Your task to perform on an android device: Search for a 1/4" hex shank drill bit on Lowe's. Image 0: 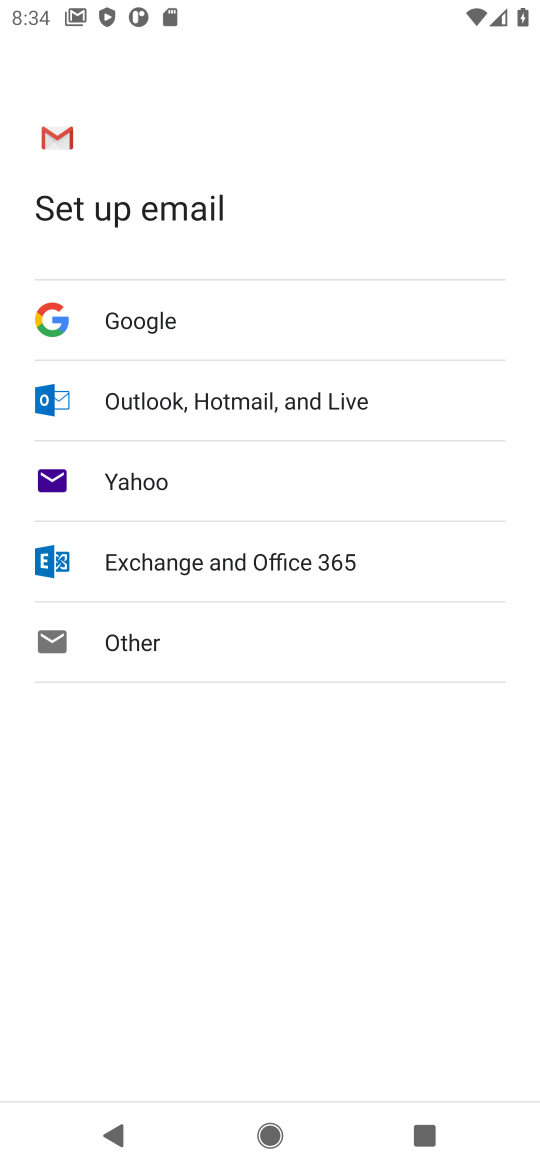
Step 0: press back button
Your task to perform on an android device: Search for a 1/4" hex shank drill bit on Lowe's. Image 1: 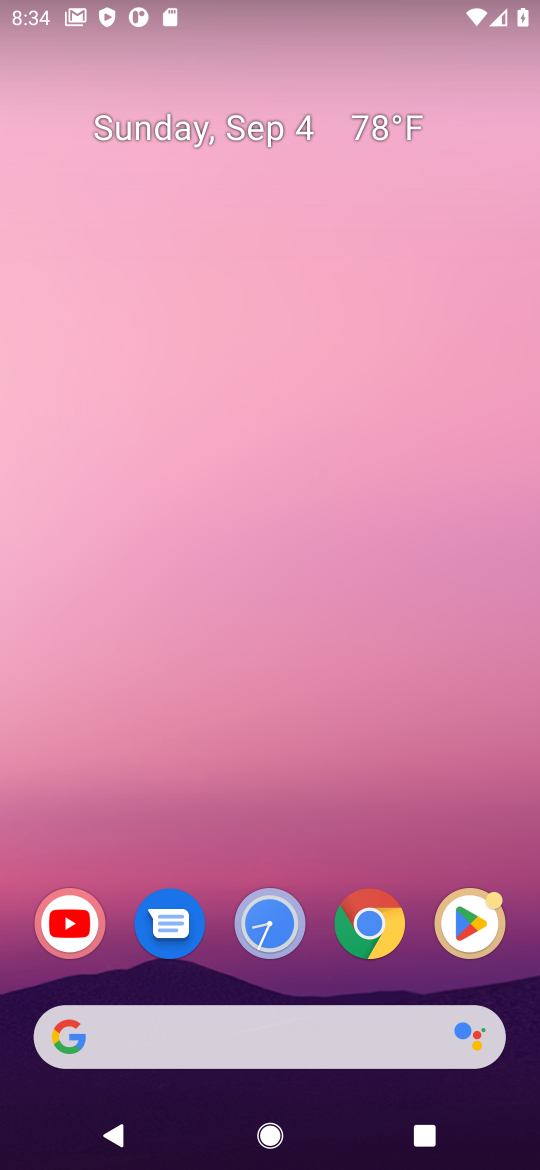
Step 1: click (138, 1021)
Your task to perform on an android device: Search for a 1/4" hex shank drill bit on Lowe's. Image 2: 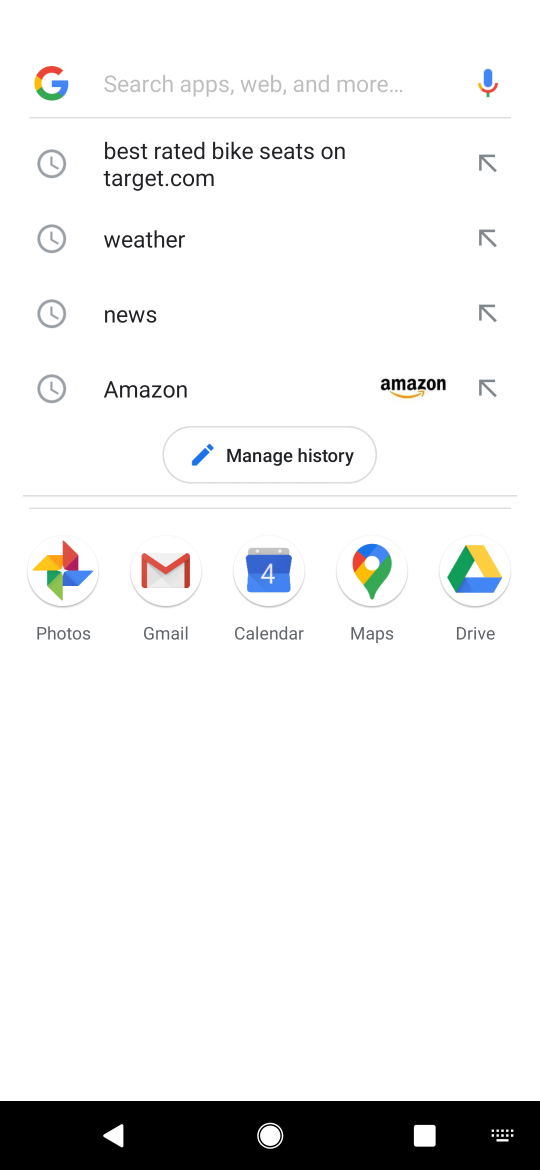
Step 2: type "1/4" hex shank drill bit on Lowe's."
Your task to perform on an android device: Search for a 1/4" hex shank drill bit on Lowe's. Image 3: 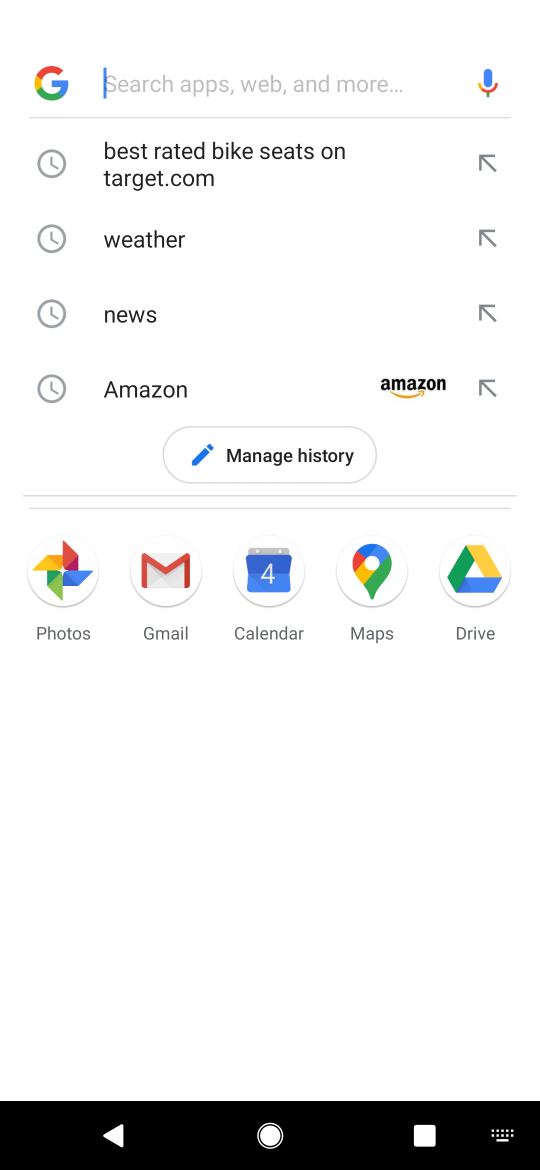
Step 3: type "1/4" hex shank drill bit on Lowe's."
Your task to perform on an android device: Search for a 1/4" hex shank drill bit on Lowe's. Image 4: 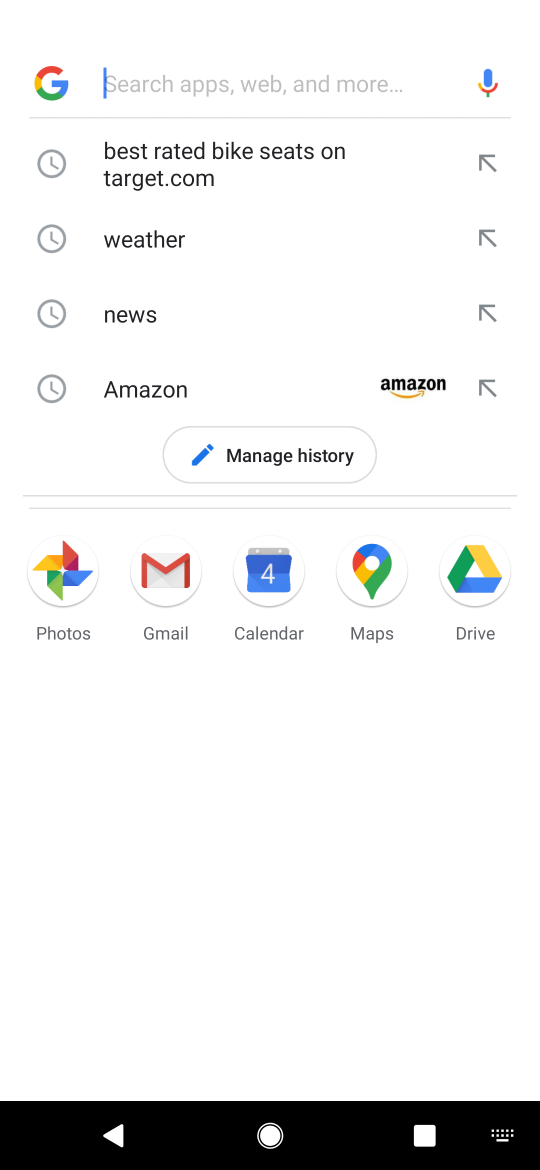
Step 4: type ""
Your task to perform on an android device: Search for a 1/4" hex shank drill bit on Lowe's. Image 5: 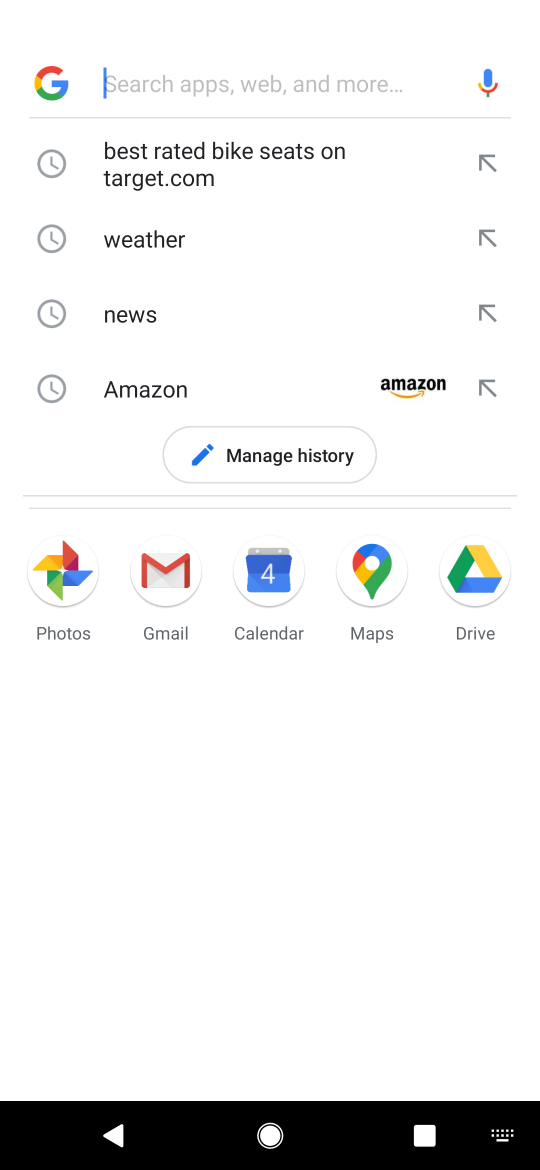
Step 5: type "1/4" hex shank drill bit on Lowe's."
Your task to perform on an android device: Search for a 1/4" hex shank drill bit on Lowe's. Image 6: 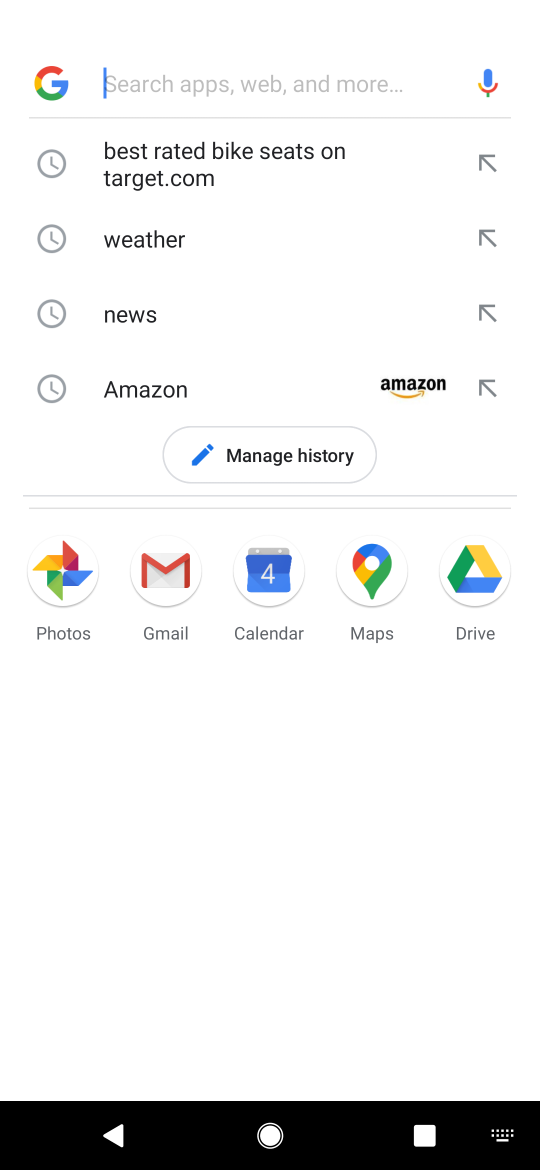
Step 6: task complete